Your task to perform on an android device: Open eBay Image 0: 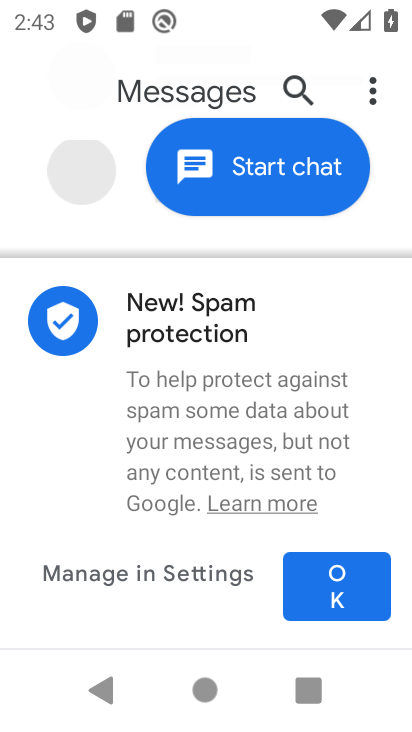
Step 0: press home button
Your task to perform on an android device: Open eBay Image 1: 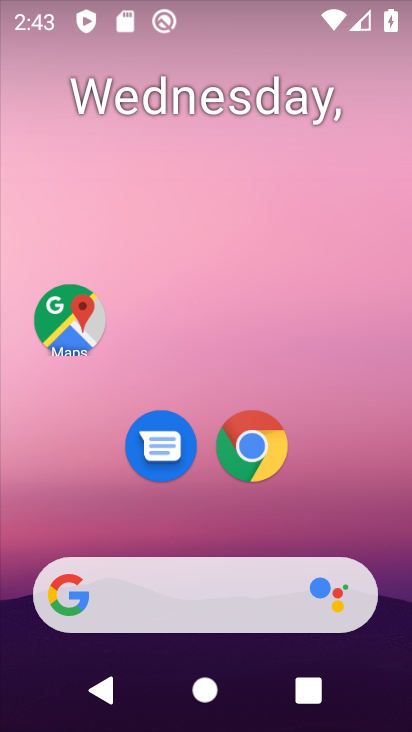
Step 1: click (258, 454)
Your task to perform on an android device: Open eBay Image 2: 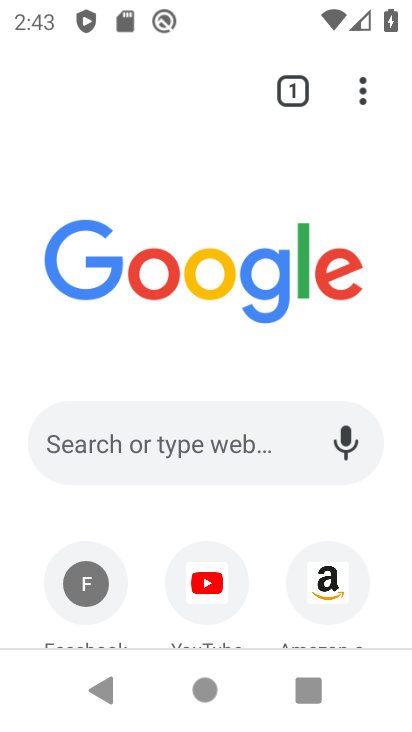
Step 2: drag from (257, 532) to (290, 251)
Your task to perform on an android device: Open eBay Image 3: 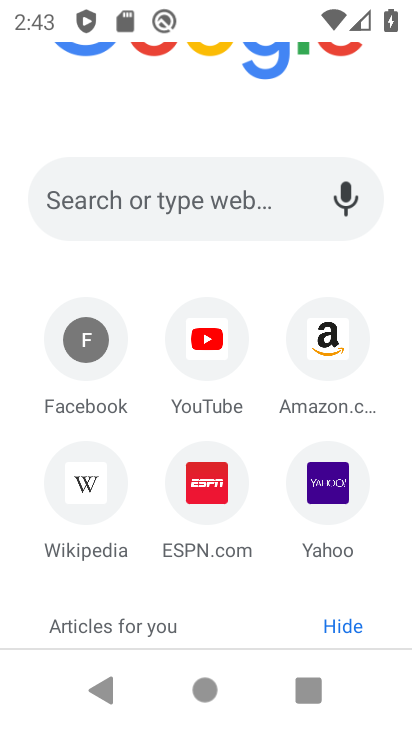
Step 3: click (251, 187)
Your task to perform on an android device: Open eBay Image 4: 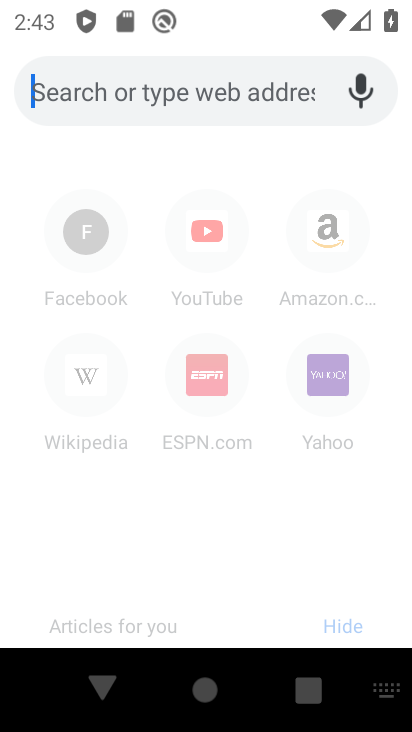
Step 4: type "ebay"
Your task to perform on an android device: Open eBay Image 5: 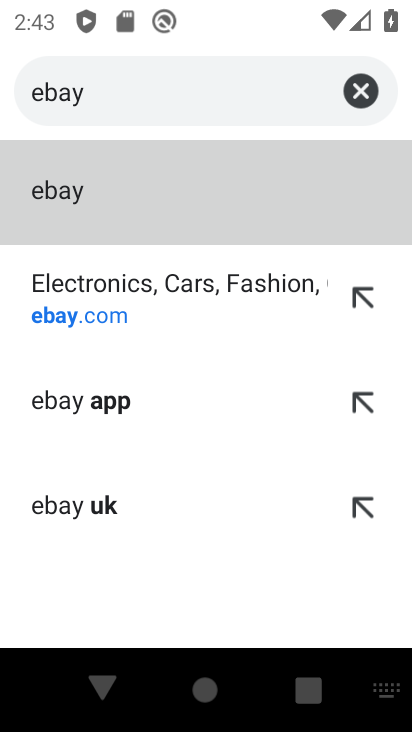
Step 5: click (116, 306)
Your task to perform on an android device: Open eBay Image 6: 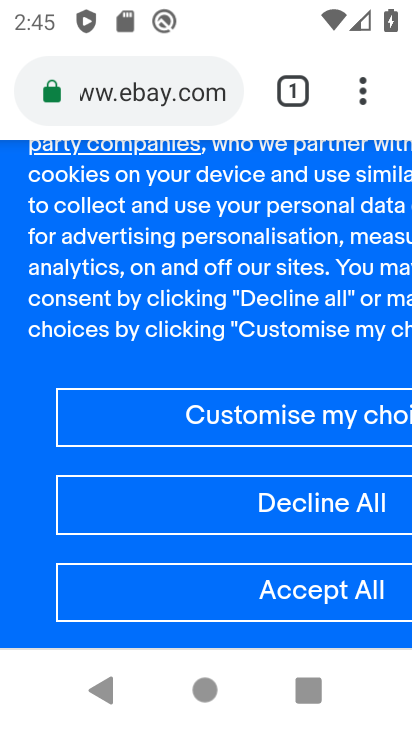
Step 6: task complete